Your task to perform on an android device: Search for a new lipgloss Image 0: 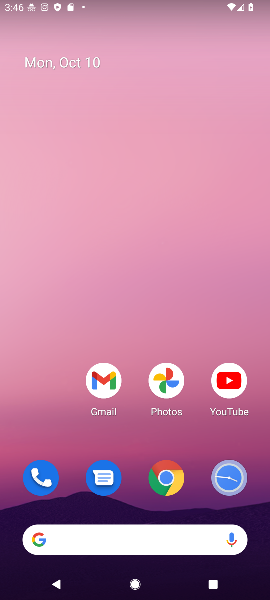
Step 0: click (153, 477)
Your task to perform on an android device: Search for a new lipgloss Image 1: 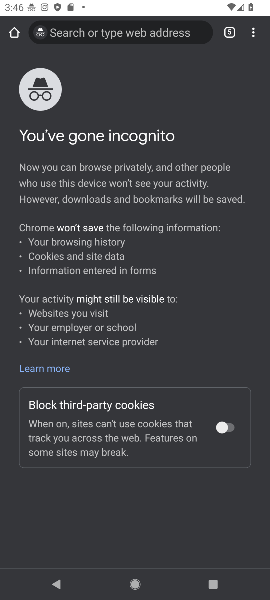
Step 1: click (118, 37)
Your task to perform on an android device: Search for a new lipgloss Image 2: 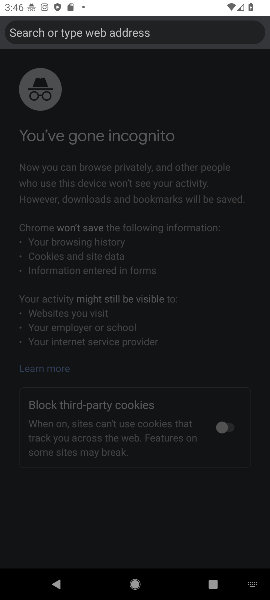
Step 2: type "new lipgloss"
Your task to perform on an android device: Search for a new lipgloss Image 3: 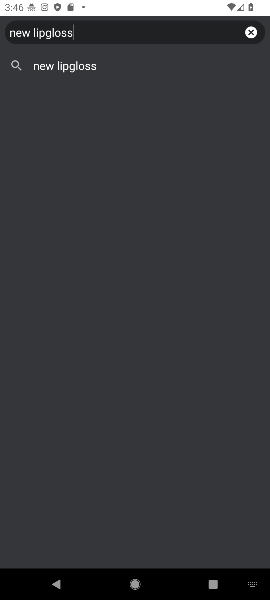
Step 3: click (50, 72)
Your task to perform on an android device: Search for a new lipgloss Image 4: 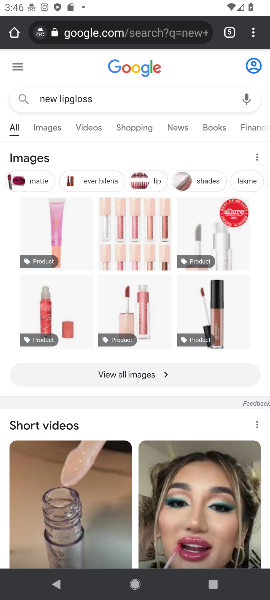
Step 4: task complete